Your task to perform on an android device: toggle pop-ups in chrome Image 0: 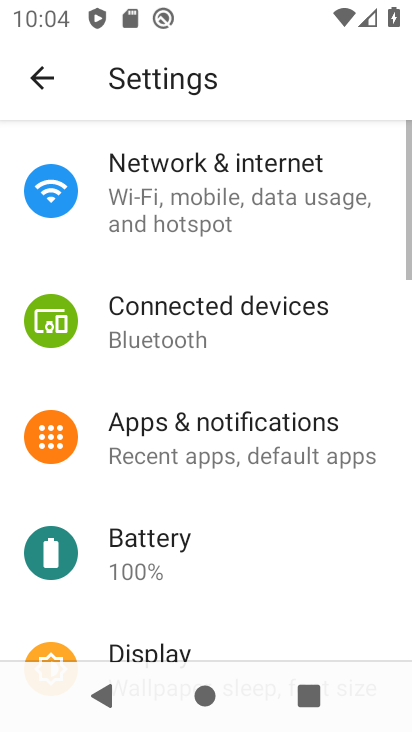
Step 0: press home button
Your task to perform on an android device: toggle pop-ups in chrome Image 1: 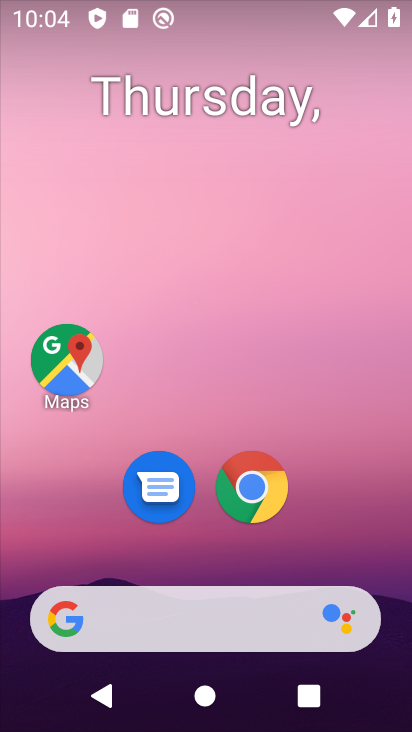
Step 1: click (267, 494)
Your task to perform on an android device: toggle pop-ups in chrome Image 2: 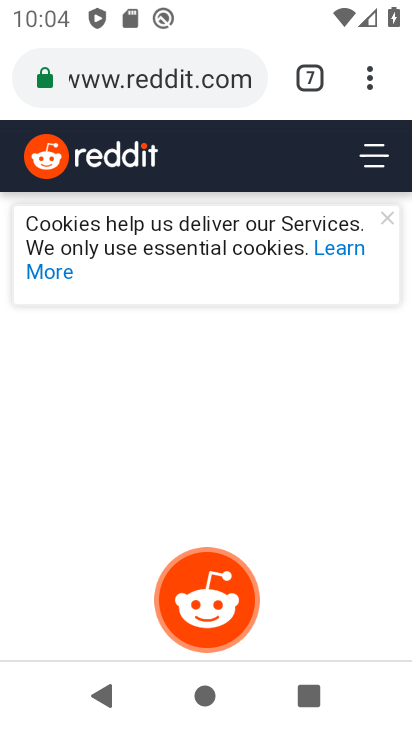
Step 2: click (369, 77)
Your task to perform on an android device: toggle pop-ups in chrome Image 3: 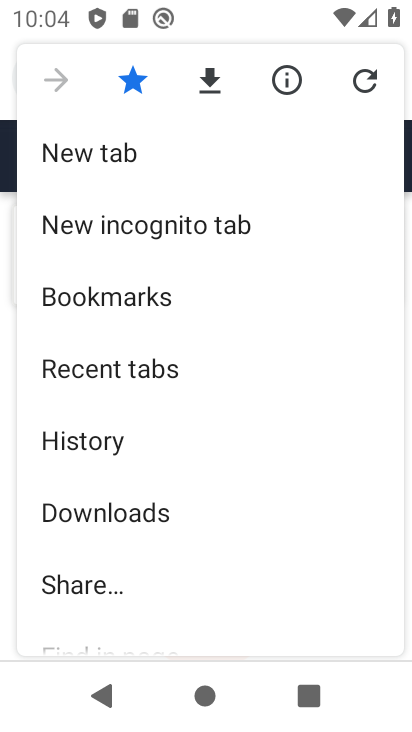
Step 3: drag from (110, 561) to (203, 177)
Your task to perform on an android device: toggle pop-ups in chrome Image 4: 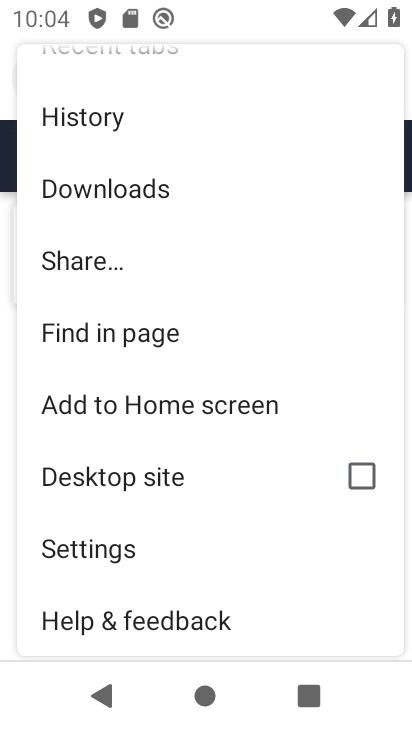
Step 4: click (90, 555)
Your task to perform on an android device: toggle pop-ups in chrome Image 5: 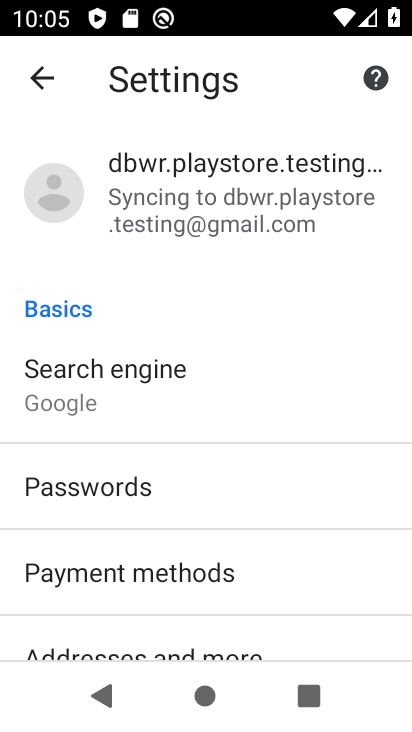
Step 5: drag from (206, 610) to (202, 93)
Your task to perform on an android device: toggle pop-ups in chrome Image 6: 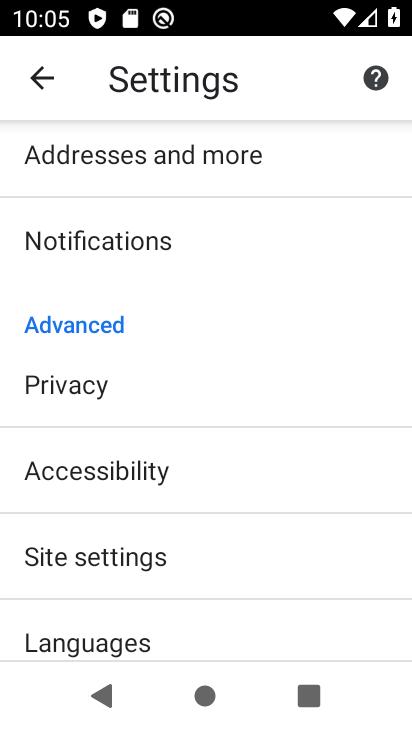
Step 6: click (91, 556)
Your task to perform on an android device: toggle pop-ups in chrome Image 7: 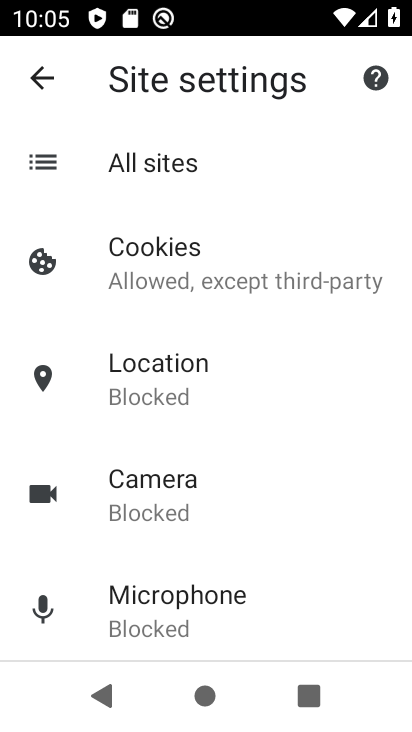
Step 7: drag from (142, 614) to (204, 192)
Your task to perform on an android device: toggle pop-ups in chrome Image 8: 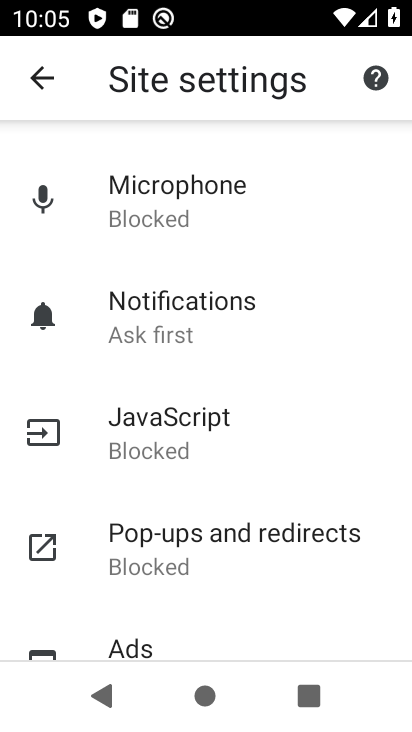
Step 8: click (261, 540)
Your task to perform on an android device: toggle pop-ups in chrome Image 9: 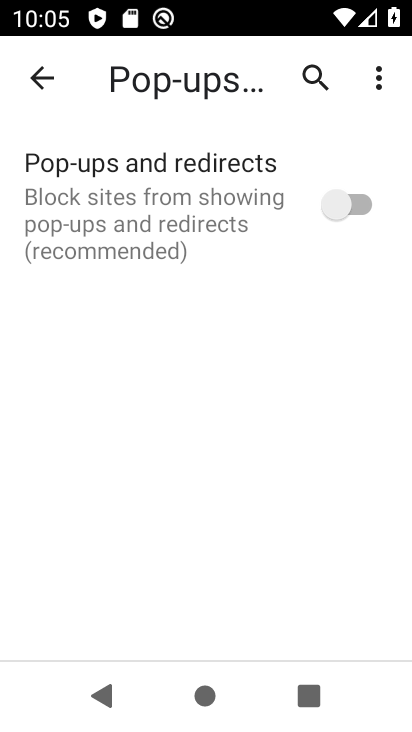
Step 9: click (339, 207)
Your task to perform on an android device: toggle pop-ups in chrome Image 10: 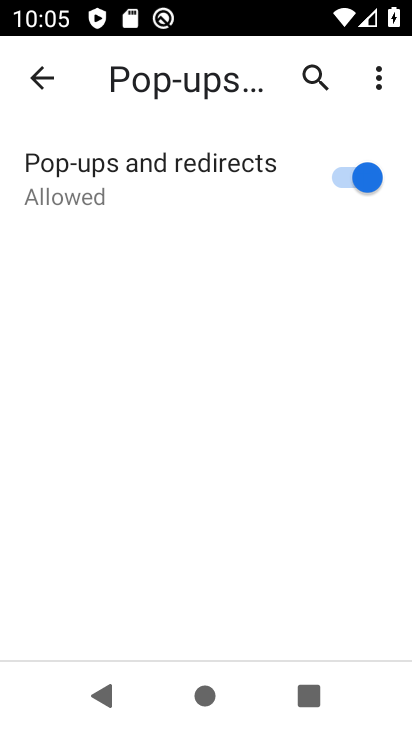
Step 10: task complete